Your task to perform on an android device: What is the news today? Image 0: 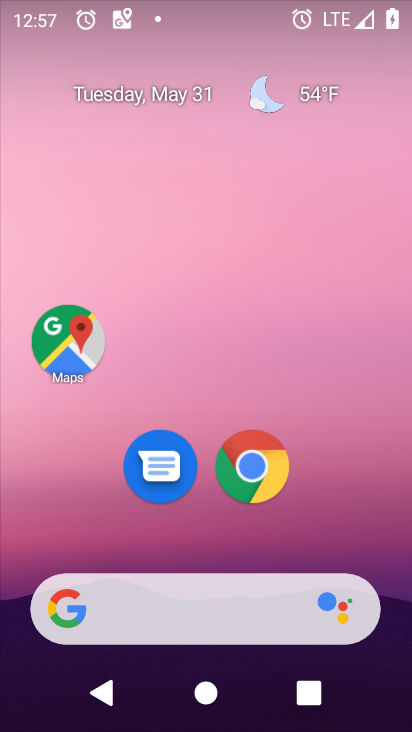
Step 0: drag from (37, 228) to (405, 286)
Your task to perform on an android device: What is the news today? Image 1: 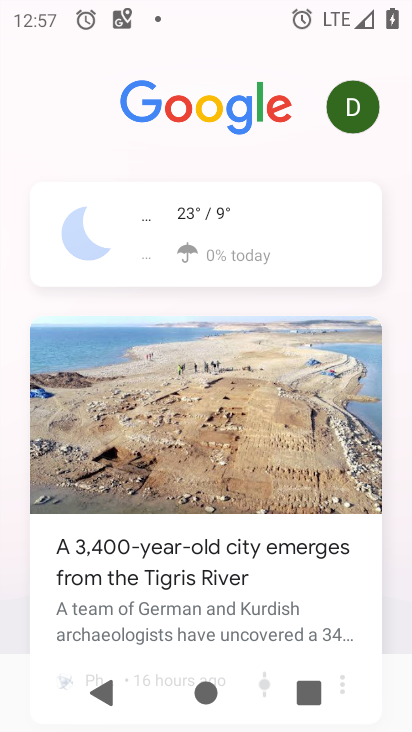
Step 1: task complete